Your task to perform on an android device: open chrome and create a bookmark for the current page Image 0: 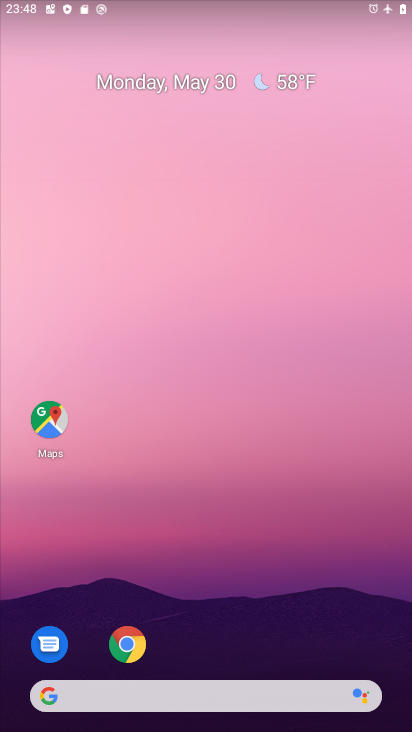
Step 0: click (129, 644)
Your task to perform on an android device: open chrome and create a bookmark for the current page Image 1: 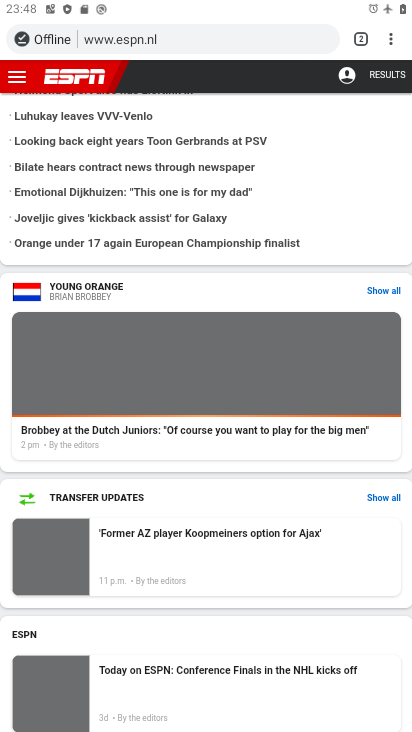
Step 1: click (387, 44)
Your task to perform on an android device: open chrome and create a bookmark for the current page Image 2: 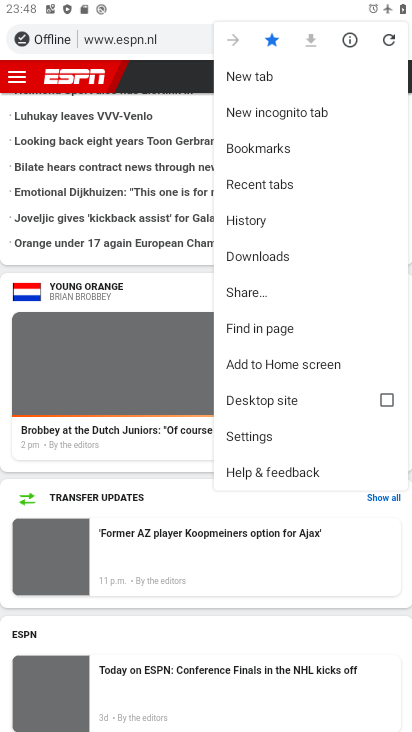
Step 2: click (256, 149)
Your task to perform on an android device: open chrome and create a bookmark for the current page Image 3: 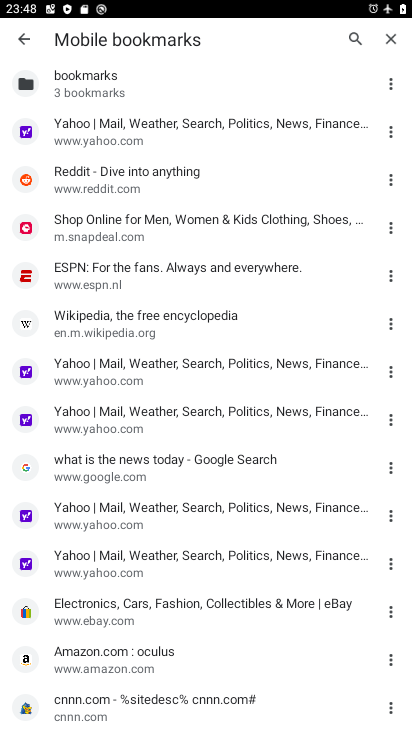
Step 3: click (126, 224)
Your task to perform on an android device: open chrome and create a bookmark for the current page Image 4: 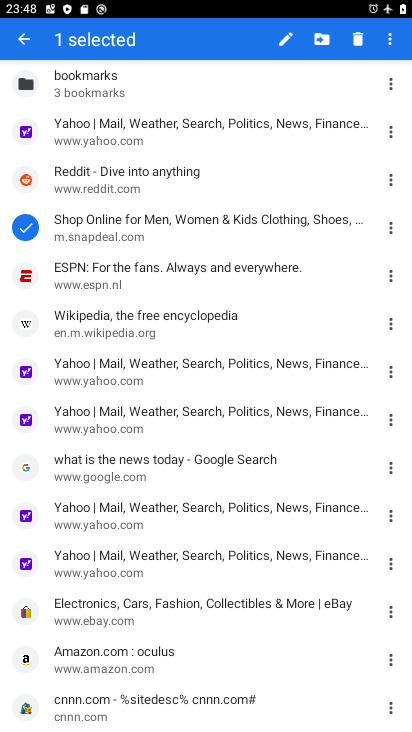
Step 4: click (316, 38)
Your task to perform on an android device: open chrome and create a bookmark for the current page Image 5: 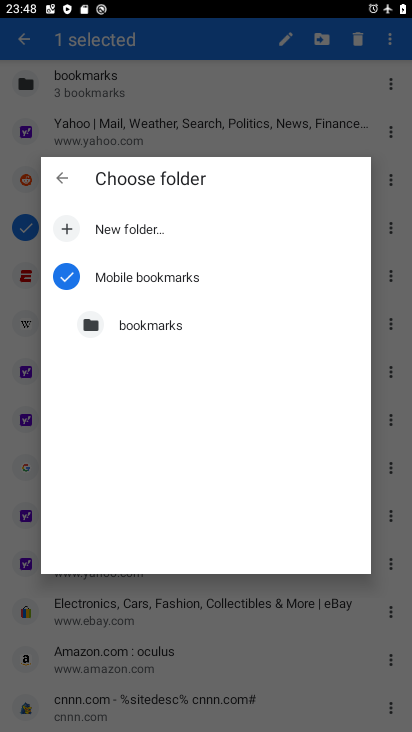
Step 5: click (143, 331)
Your task to perform on an android device: open chrome and create a bookmark for the current page Image 6: 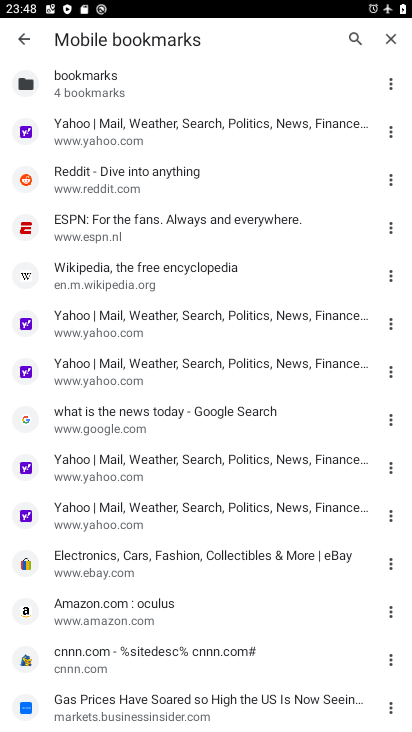
Step 6: task complete